Your task to perform on an android device: Open the stopwatch Image 0: 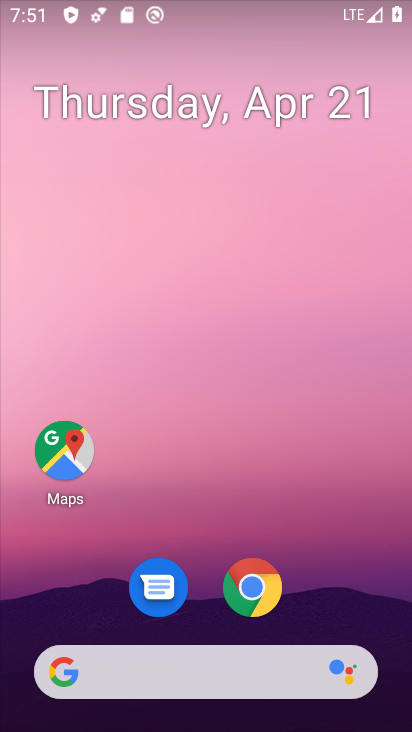
Step 0: drag from (364, 474) to (364, 369)
Your task to perform on an android device: Open the stopwatch Image 1: 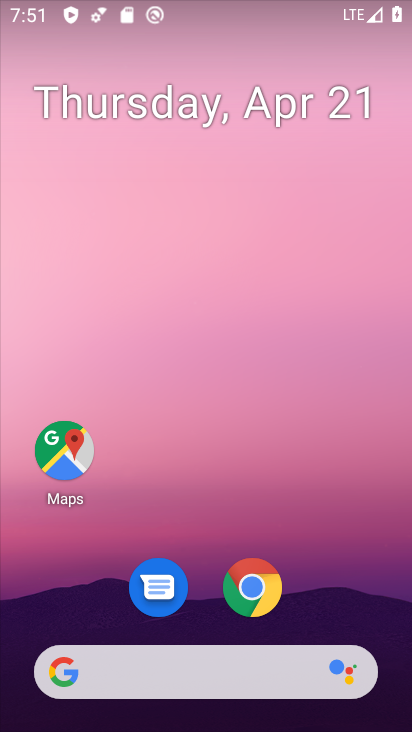
Step 1: click (378, 257)
Your task to perform on an android device: Open the stopwatch Image 2: 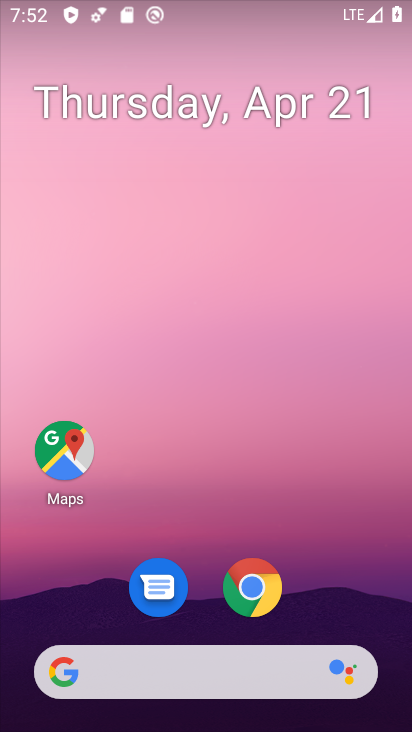
Step 2: drag from (376, 595) to (384, 73)
Your task to perform on an android device: Open the stopwatch Image 3: 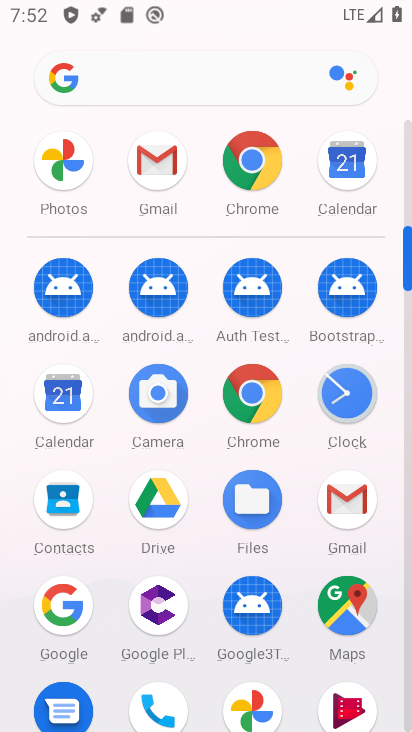
Step 3: click (343, 403)
Your task to perform on an android device: Open the stopwatch Image 4: 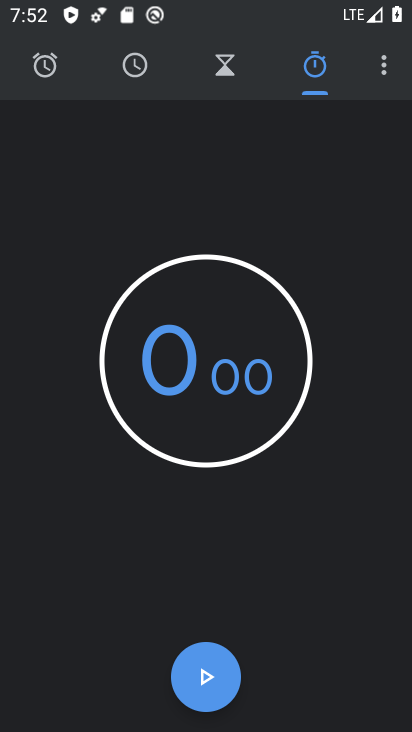
Step 4: task complete